Your task to perform on an android device: turn on bluetooth scan Image 0: 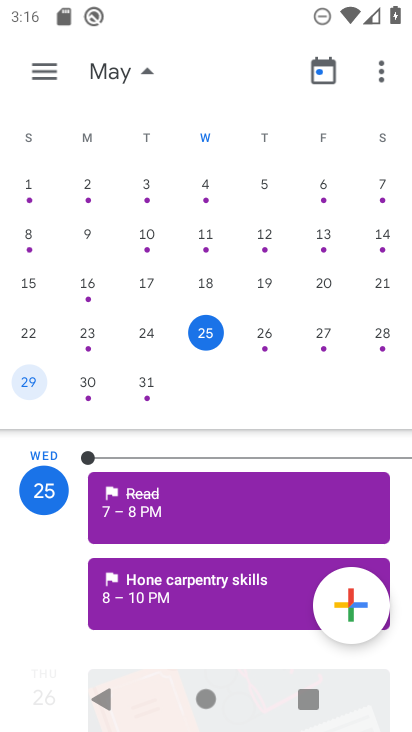
Step 0: press home button
Your task to perform on an android device: turn on bluetooth scan Image 1: 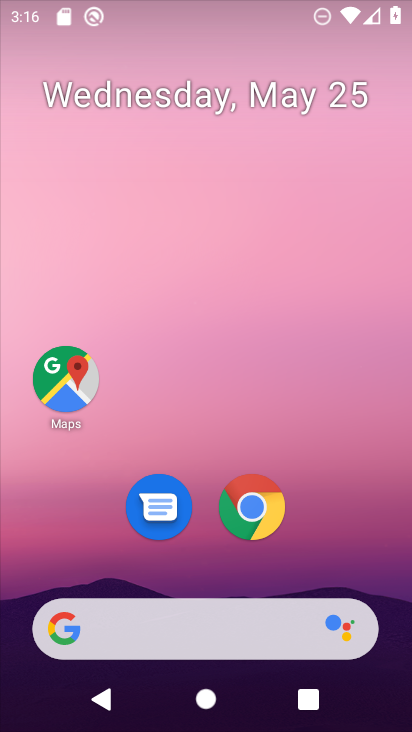
Step 1: drag from (232, 536) to (294, 222)
Your task to perform on an android device: turn on bluetooth scan Image 2: 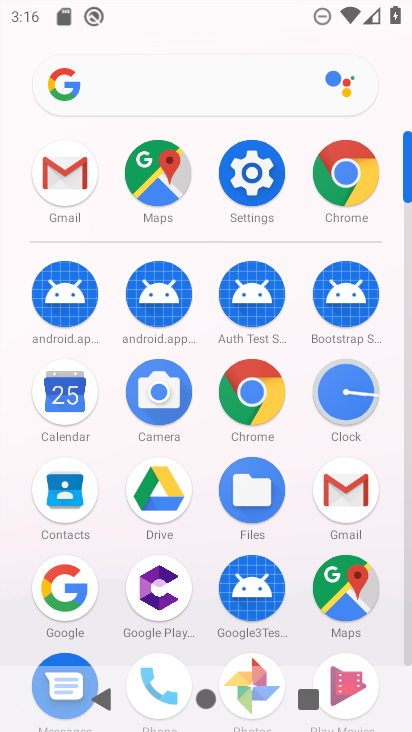
Step 2: click (284, 172)
Your task to perform on an android device: turn on bluetooth scan Image 3: 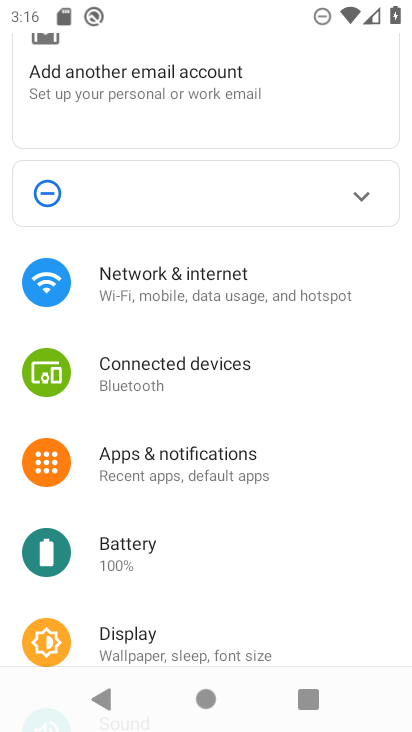
Step 3: click (247, 380)
Your task to perform on an android device: turn on bluetooth scan Image 4: 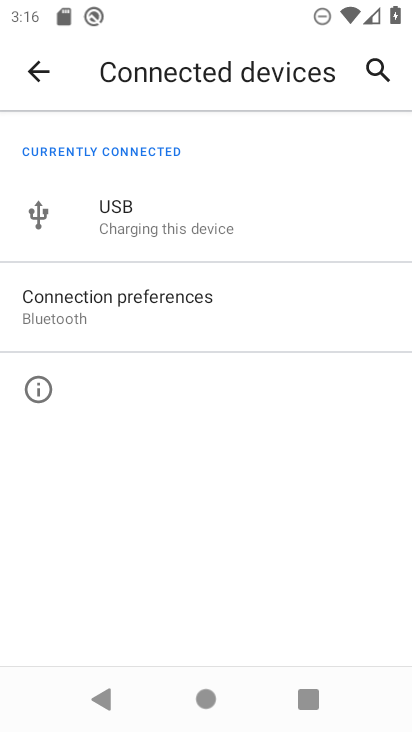
Step 4: click (187, 306)
Your task to perform on an android device: turn on bluetooth scan Image 5: 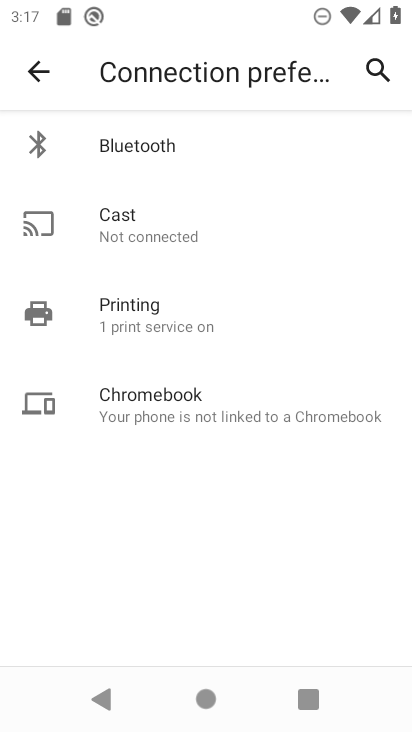
Step 5: click (240, 153)
Your task to perform on an android device: turn on bluetooth scan Image 6: 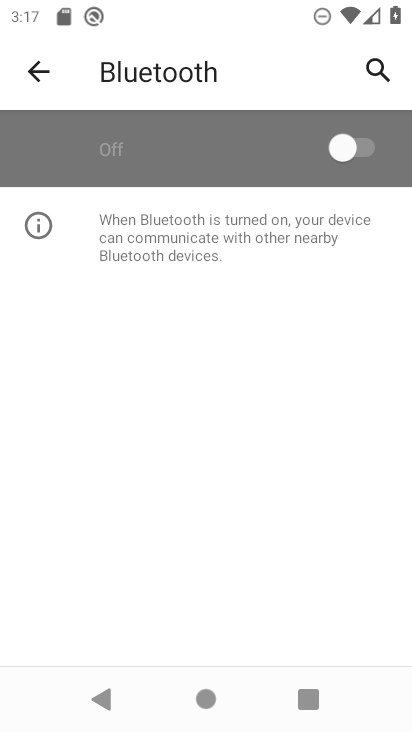
Step 6: click (379, 132)
Your task to perform on an android device: turn on bluetooth scan Image 7: 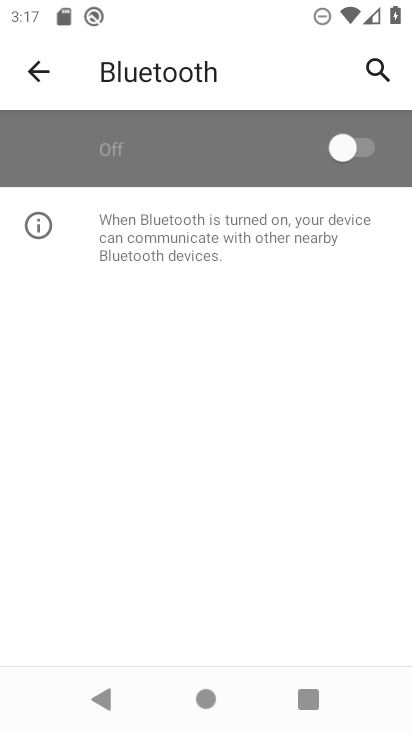
Step 7: task complete